Your task to perform on an android device: check battery use Image 0: 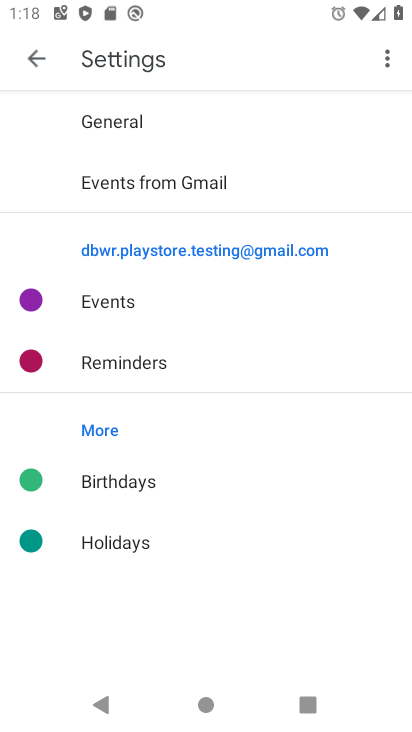
Step 0: press home button
Your task to perform on an android device: check battery use Image 1: 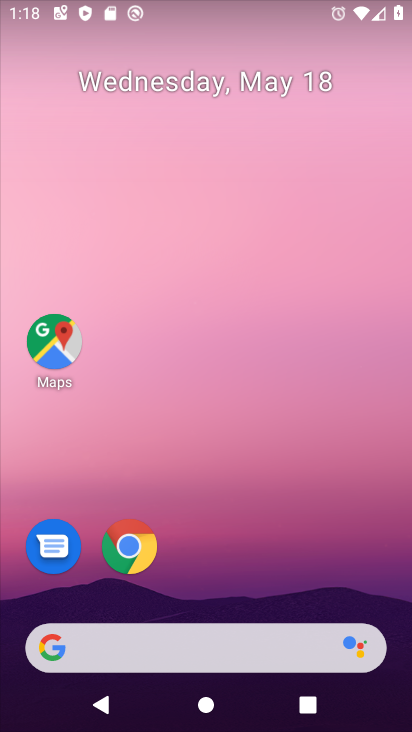
Step 1: drag from (249, 652) to (299, 31)
Your task to perform on an android device: check battery use Image 2: 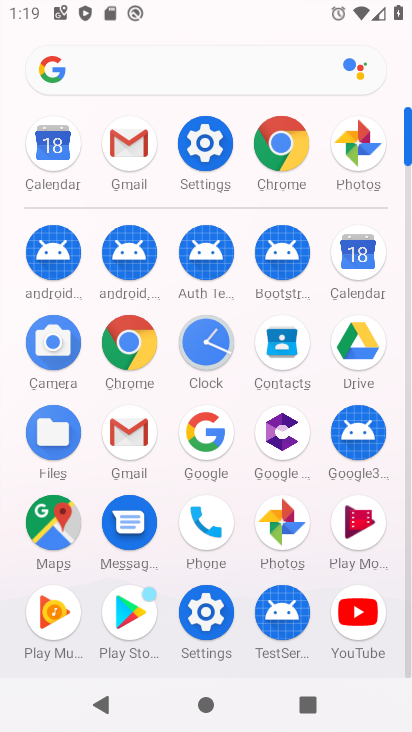
Step 2: click (214, 641)
Your task to perform on an android device: check battery use Image 3: 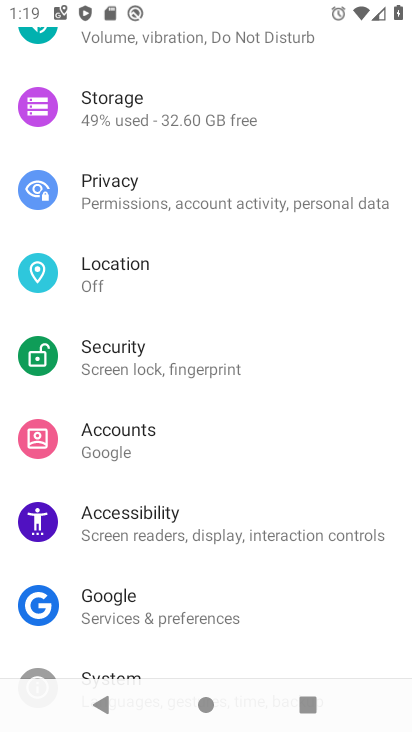
Step 3: drag from (220, 307) to (204, 657)
Your task to perform on an android device: check battery use Image 4: 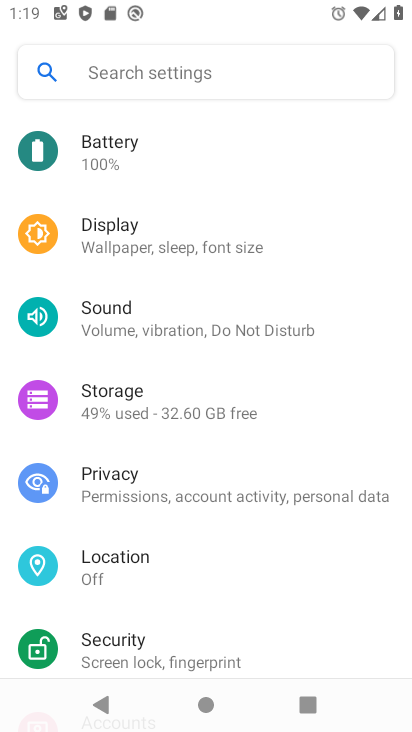
Step 4: click (207, 157)
Your task to perform on an android device: check battery use Image 5: 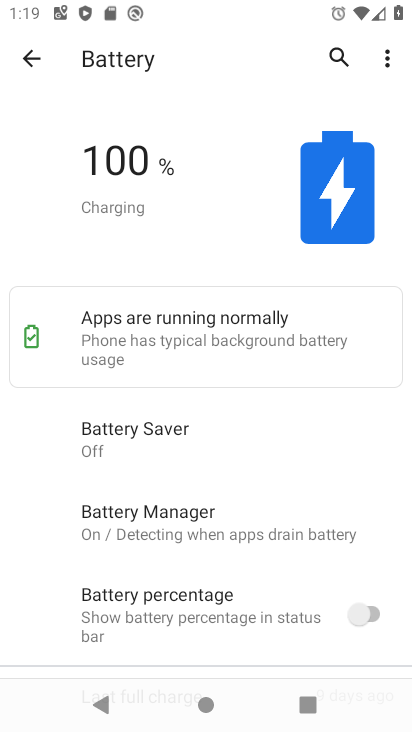
Step 5: task complete